Your task to perform on an android device: change the upload size in google photos Image 0: 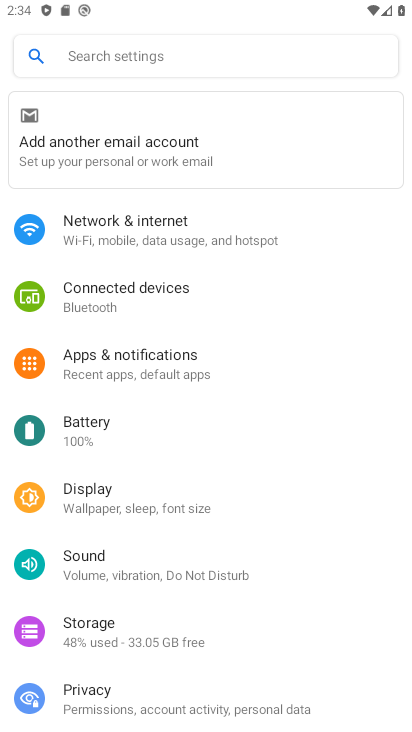
Step 0: press home button
Your task to perform on an android device: change the upload size in google photos Image 1: 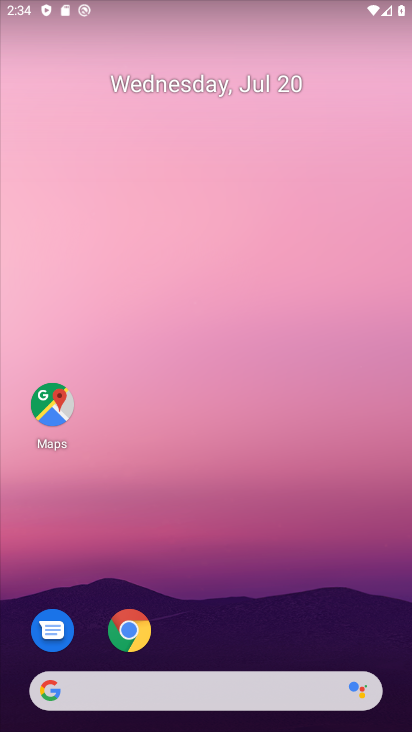
Step 1: drag from (276, 648) to (351, 194)
Your task to perform on an android device: change the upload size in google photos Image 2: 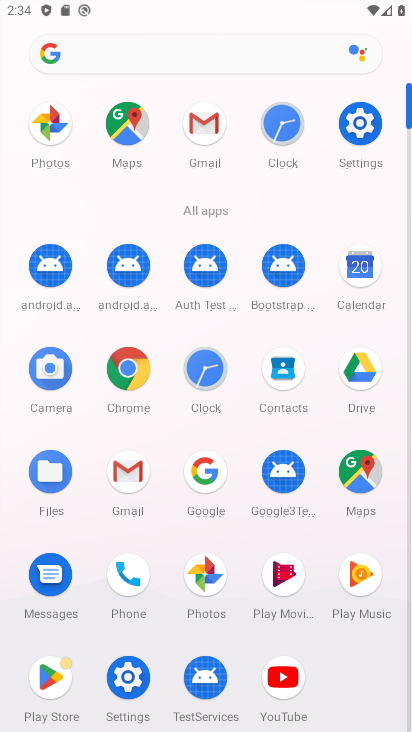
Step 2: click (194, 576)
Your task to perform on an android device: change the upload size in google photos Image 3: 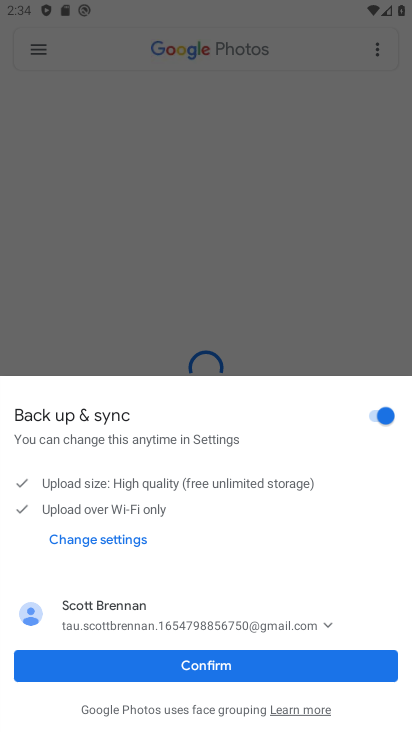
Step 3: click (241, 661)
Your task to perform on an android device: change the upload size in google photos Image 4: 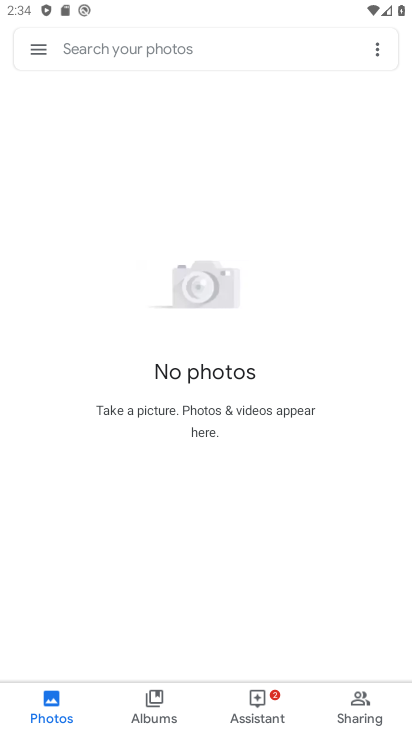
Step 4: click (30, 48)
Your task to perform on an android device: change the upload size in google photos Image 5: 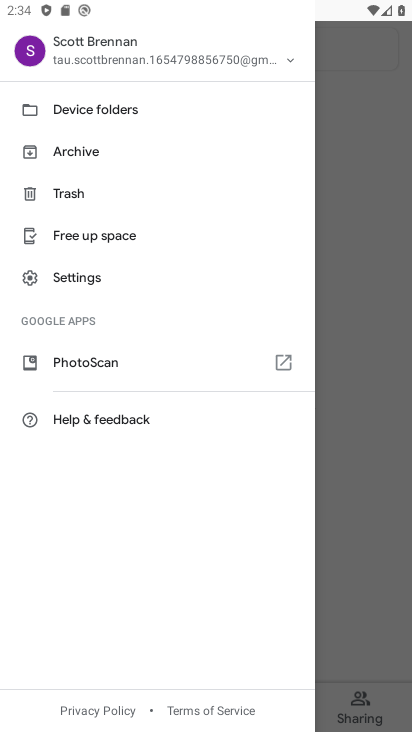
Step 5: click (138, 287)
Your task to perform on an android device: change the upload size in google photos Image 6: 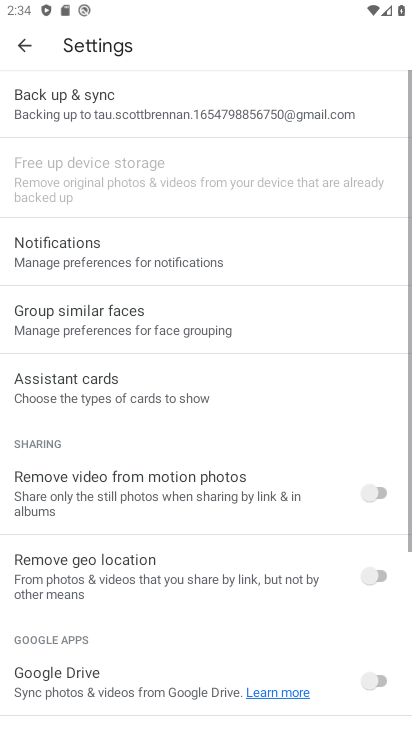
Step 6: click (197, 127)
Your task to perform on an android device: change the upload size in google photos Image 7: 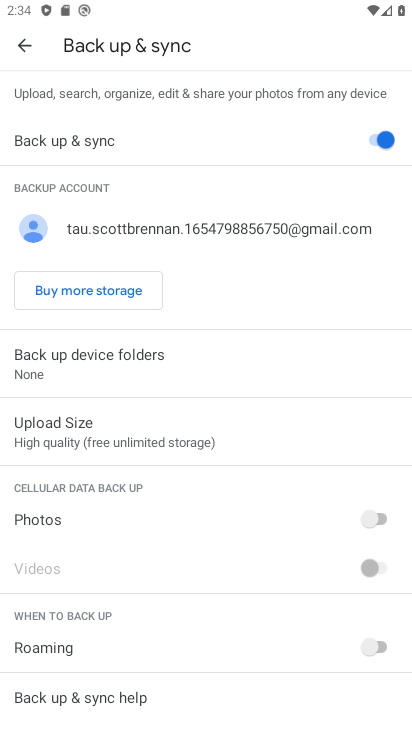
Step 7: click (158, 442)
Your task to perform on an android device: change the upload size in google photos Image 8: 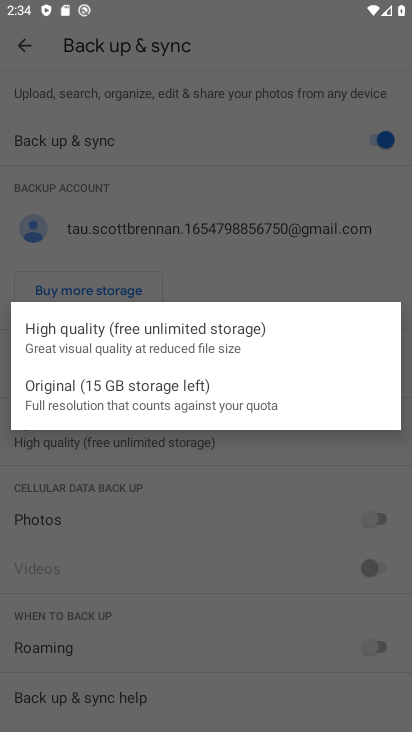
Step 8: click (176, 408)
Your task to perform on an android device: change the upload size in google photos Image 9: 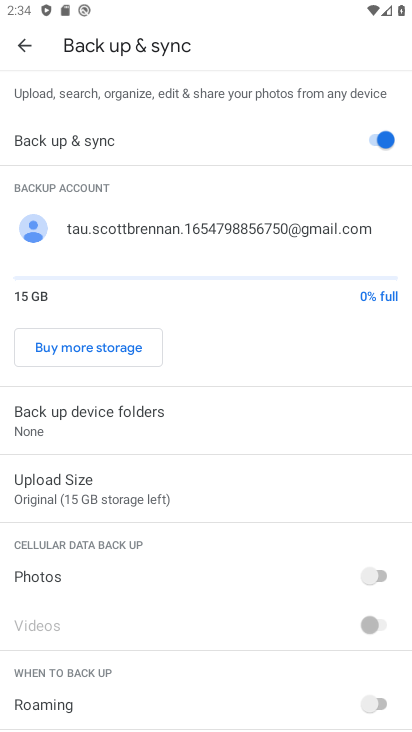
Step 9: task complete